Your task to perform on an android device: Open a new Chrome window Image 0: 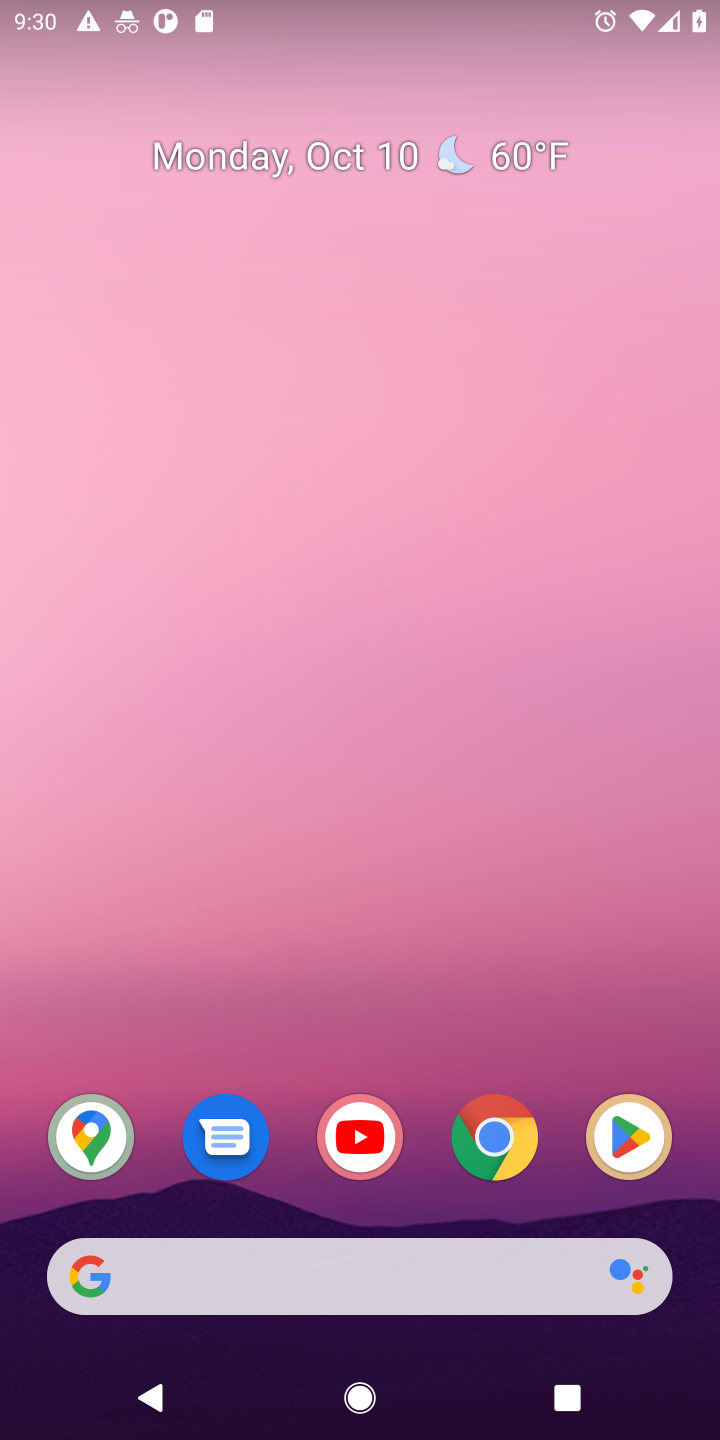
Step 0: click (507, 1138)
Your task to perform on an android device: Open a new Chrome window Image 1: 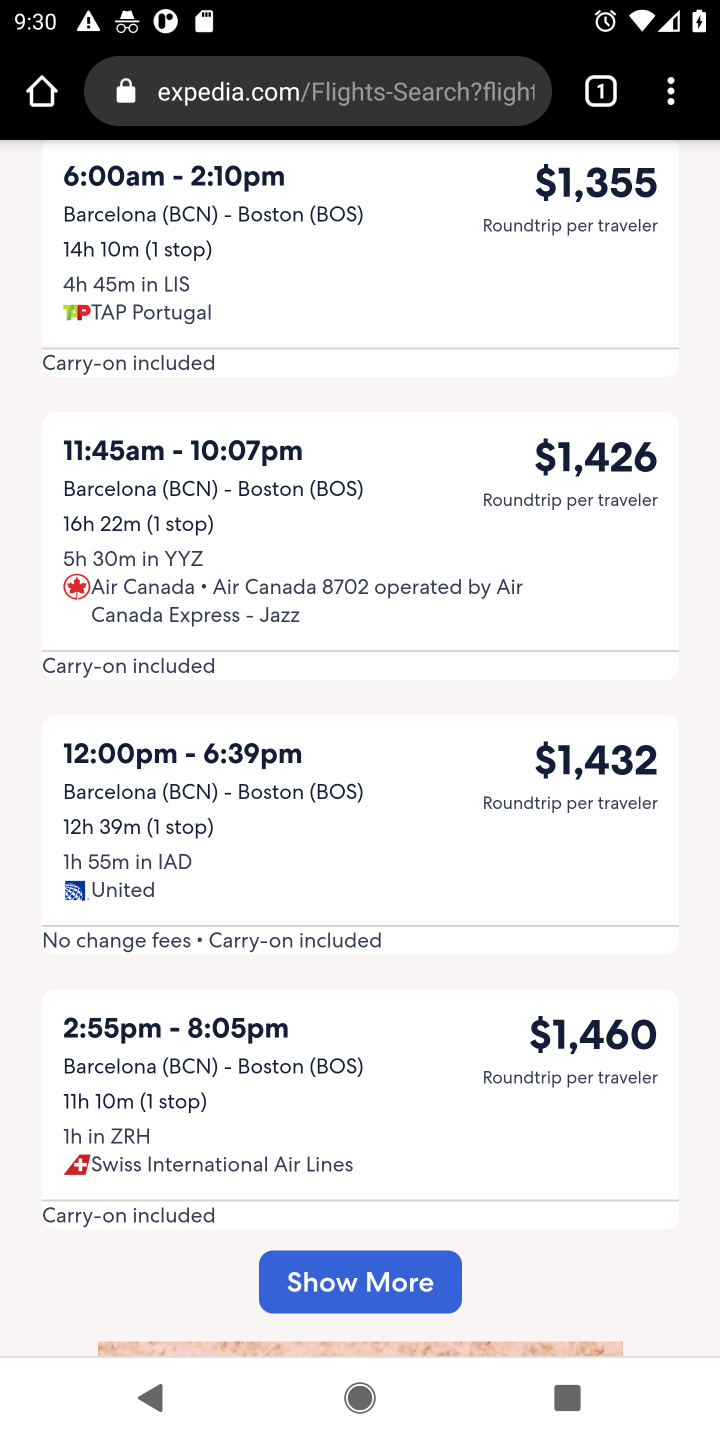
Step 1: click (375, 55)
Your task to perform on an android device: Open a new Chrome window Image 2: 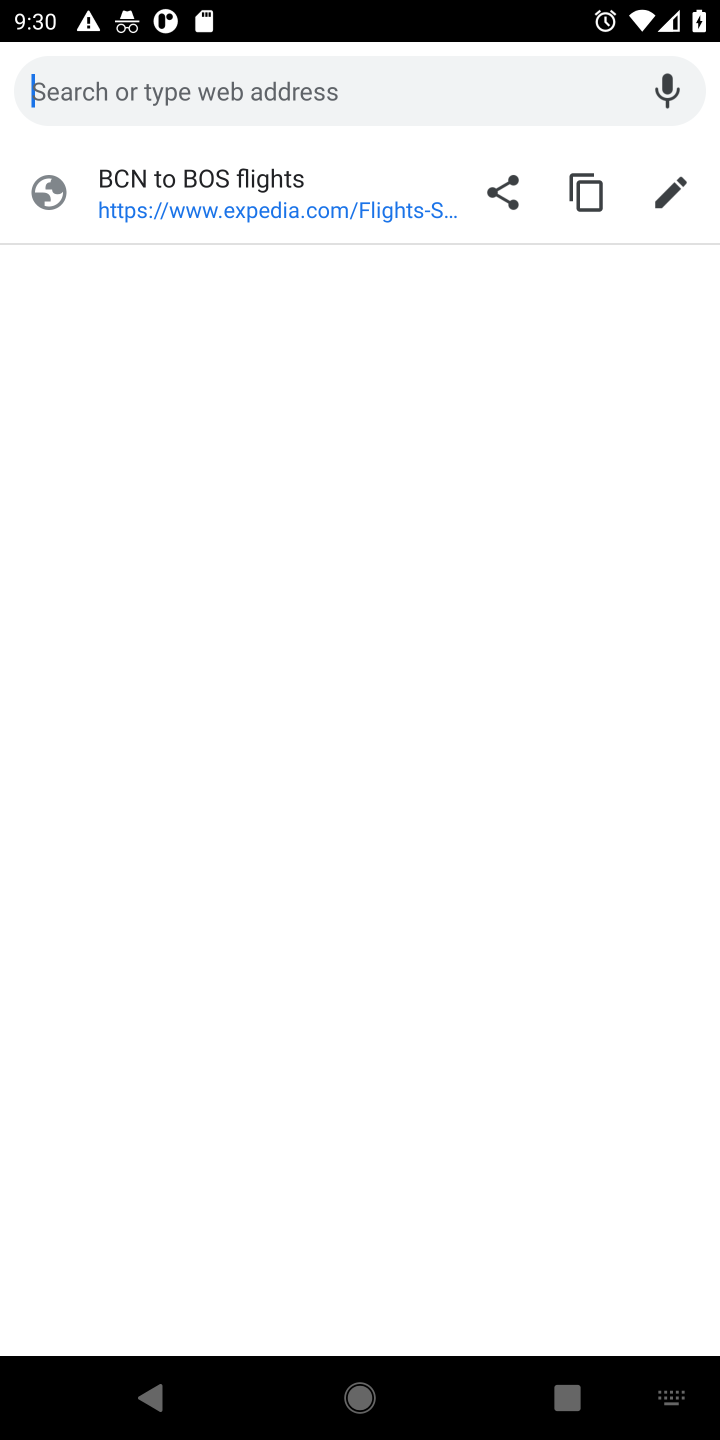
Step 2: press back button
Your task to perform on an android device: Open a new Chrome window Image 3: 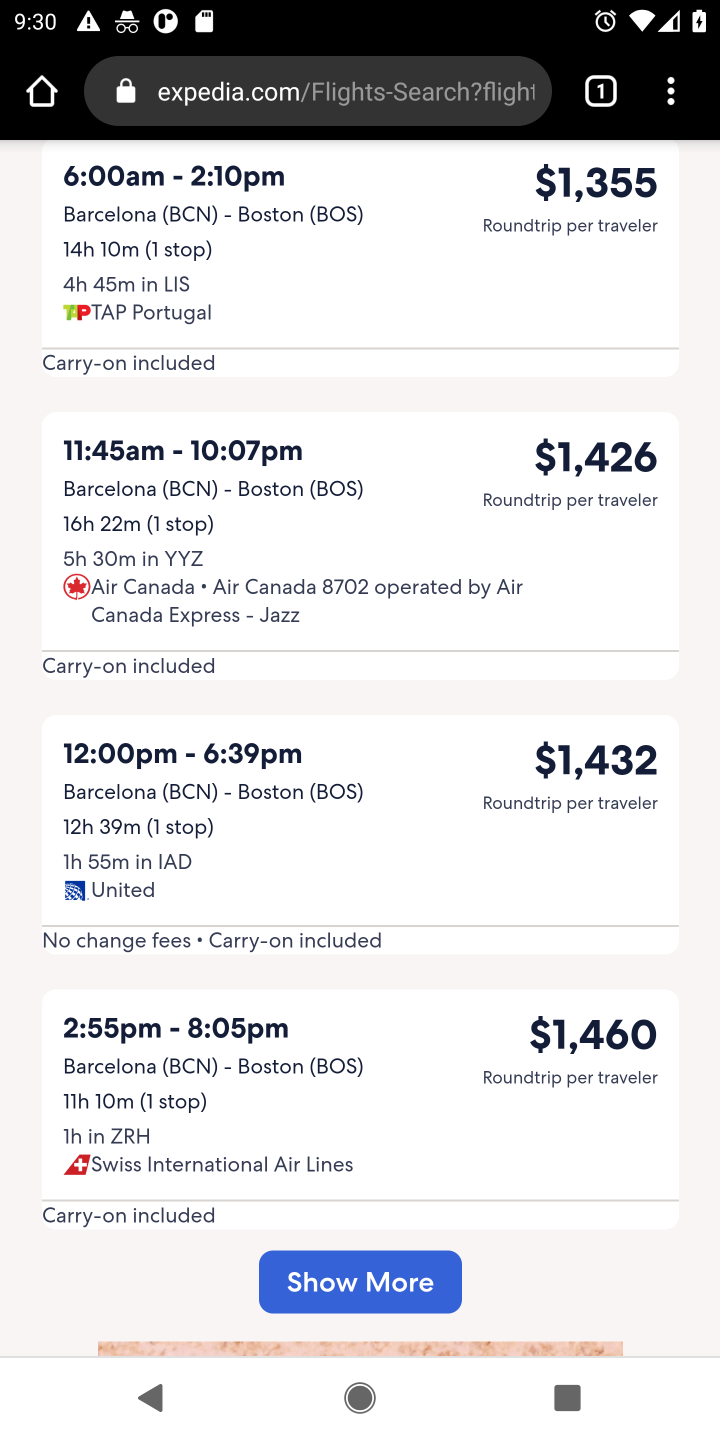
Step 3: click (669, 116)
Your task to perform on an android device: Open a new Chrome window Image 4: 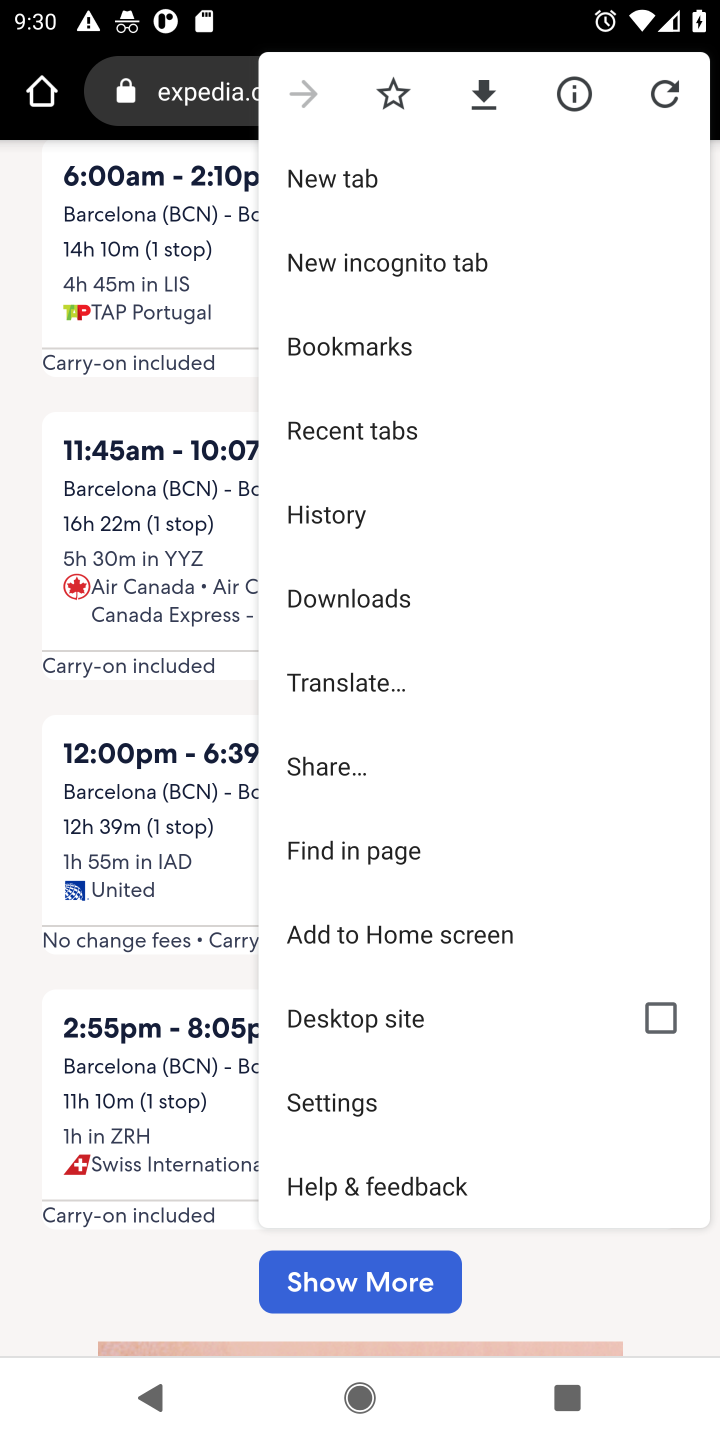
Step 4: click (333, 168)
Your task to perform on an android device: Open a new Chrome window Image 5: 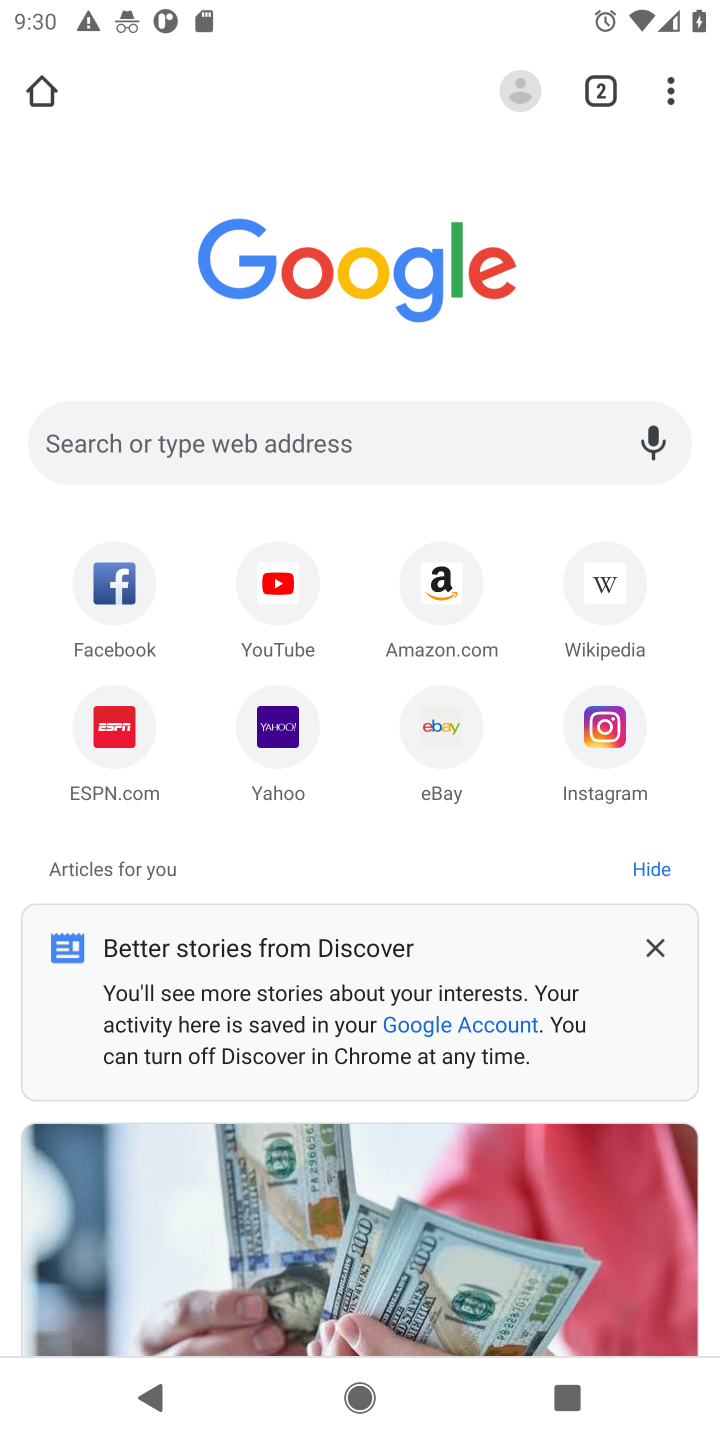
Step 5: task complete